Your task to perform on an android device: turn on translation in the chrome app Image 0: 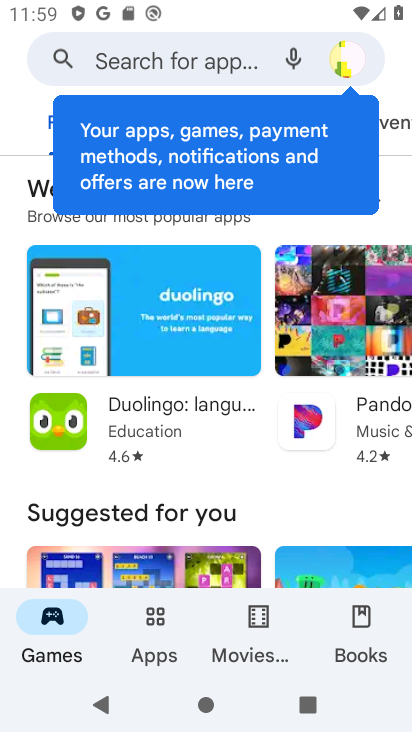
Step 0: press home button
Your task to perform on an android device: turn on translation in the chrome app Image 1: 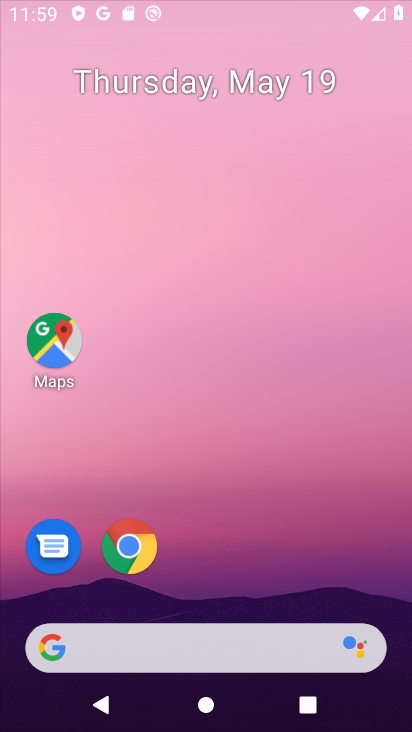
Step 1: click (402, 350)
Your task to perform on an android device: turn on translation in the chrome app Image 2: 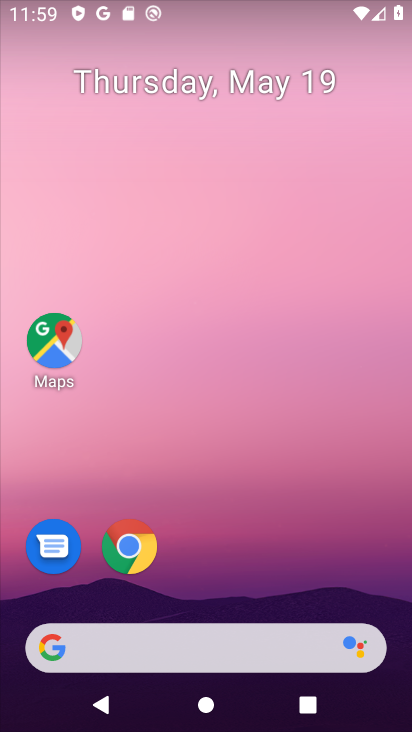
Step 2: click (132, 548)
Your task to perform on an android device: turn on translation in the chrome app Image 3: 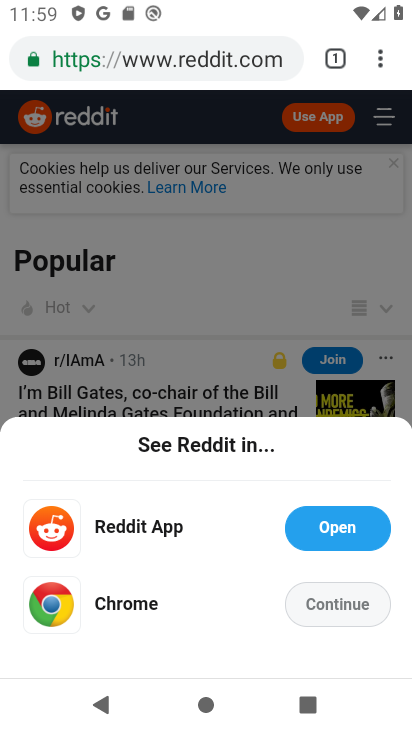
Step 3: click (389, 58)
Your task to perform on an android device: turn on translation in the chrome app Image 4: 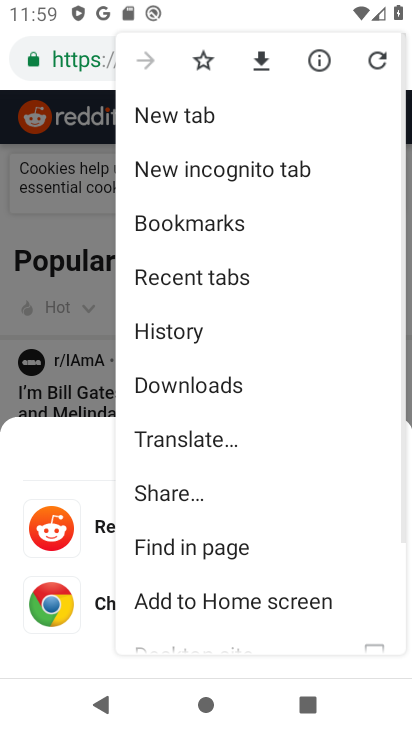
Step 4: drag from (227, 590) to (289, 183)
Your task to perform on an android device: turn on translation in the chrome app Image 5: 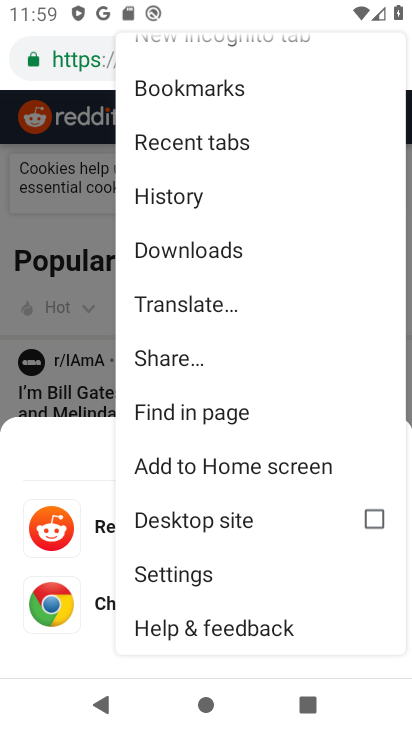
Step 5: click (194, 579)
Your task to perform on an android device: turn on translation in the chrome app Image 6: 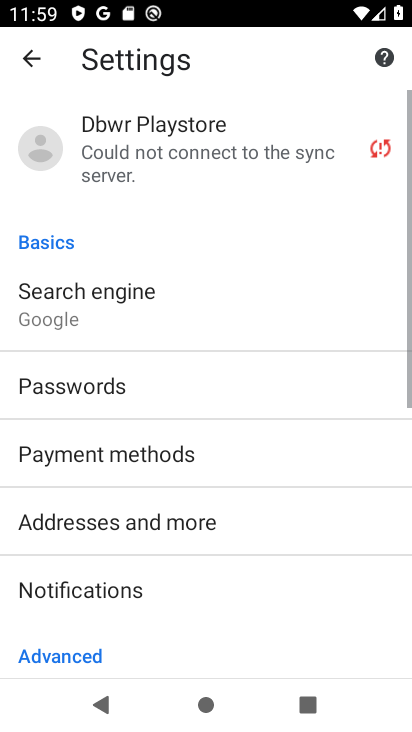
Step 6: drag from (208, 507) to (258, 169)
Your task to perform on an android device: turn on translation in the chrome app Image 7: 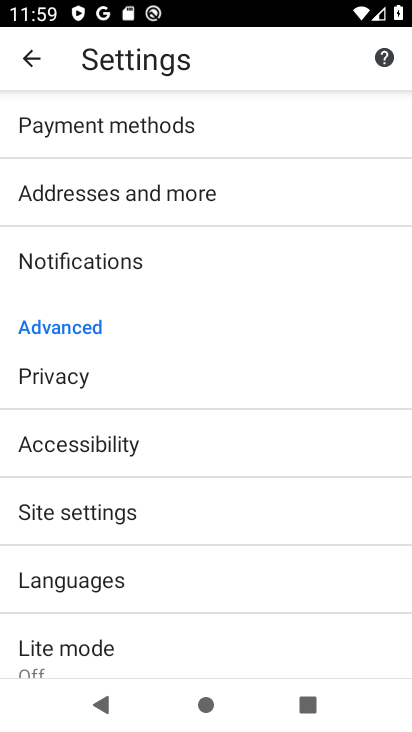
Step 7: drag from (111, 602) to (214, 365)
Your task to perform on an android device: turn on translation in the chrome app Image 8: 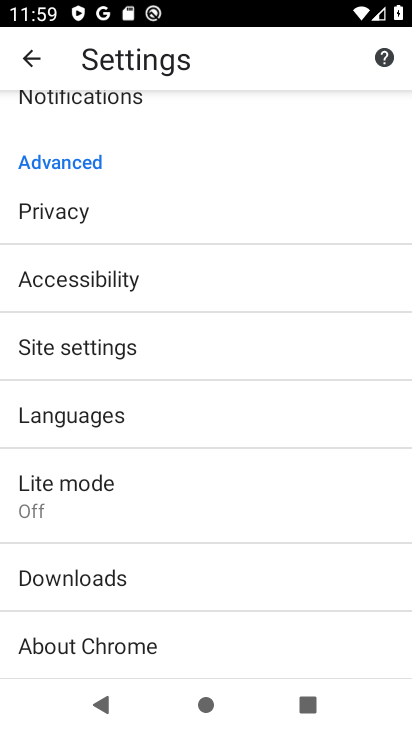
Step 8: click (89, 409)
Your task to perform on an android device: turn on translation in the chrome app Image 9: 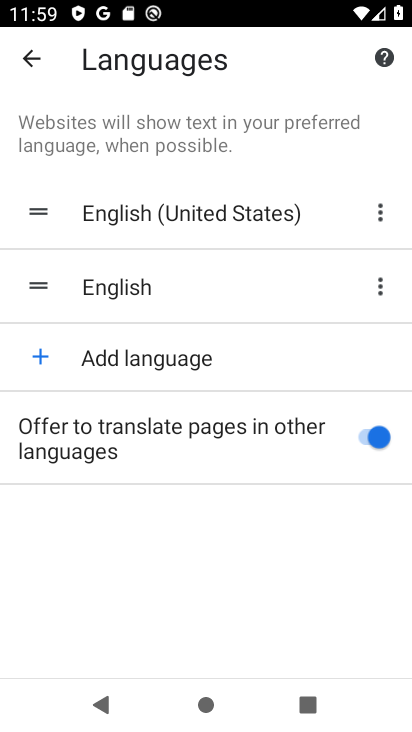
Step 9: click (376, 443)
Your task to perform on an android device: turn on translation in the chrome app Image 10: 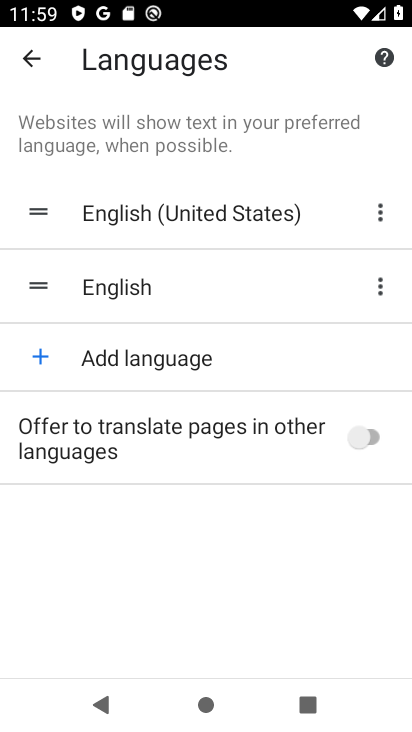
Step 10: task complete